Your task to perform on an android device: read, delete, or share a saved page in the chrome app Image 0: 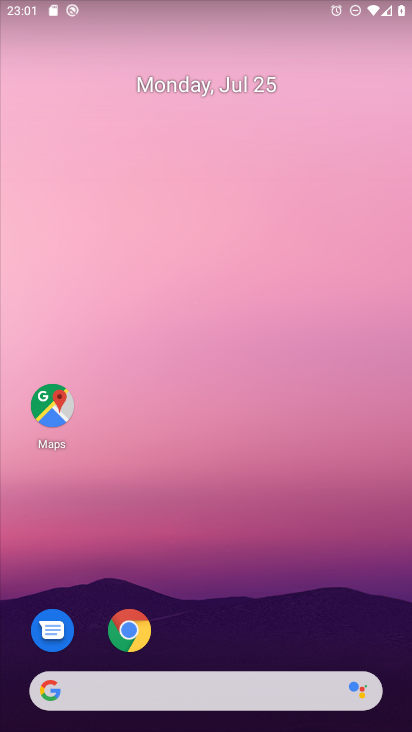
Step 0: drag from (333, 640) to (227, 54)
Your task to perform on an android device: read, delete, or share a saved page in the chrome app Image 1: 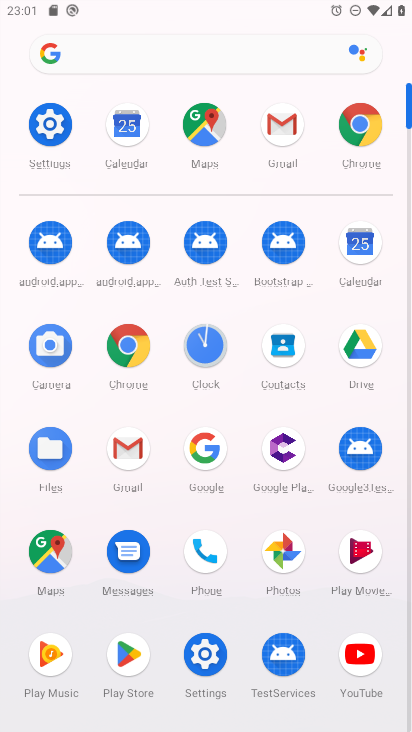
Step 1: click (357, 126)
Your task to perform on an android device: read, delete, or share a saved page in the chrome app Image 2: 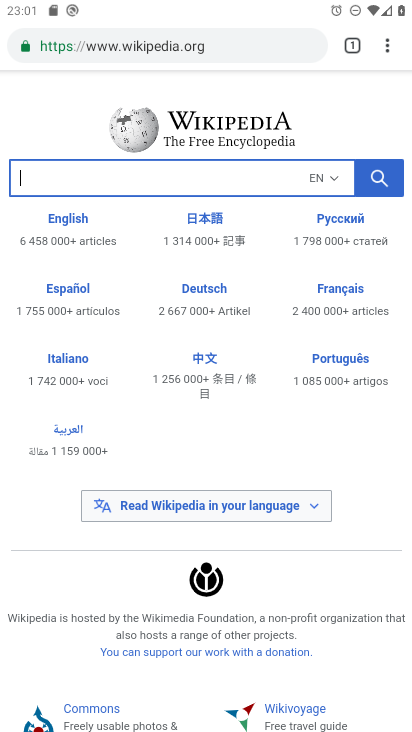
Step 2: task complete